Your task to perform on an android device: turn off airplane mode Image 0: 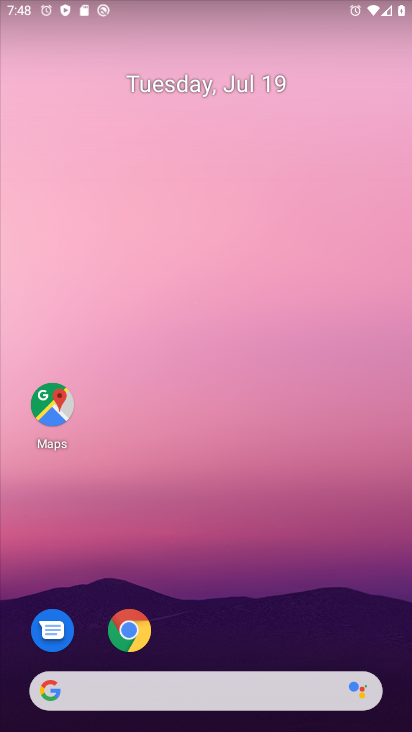
Step 0: drag from (299, 2) to (396, 369)
Your task to perform on an android device: turn off airplane mode Image 1: 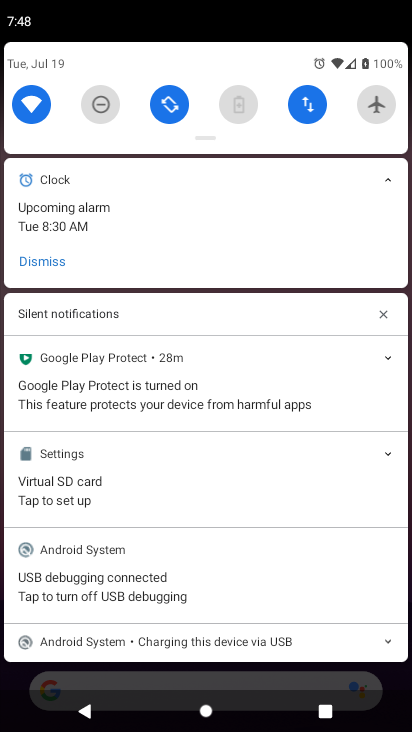
Step 1: task complete